Your task to perform on an android device: delete the emails in spam in the gmail app Image 0: 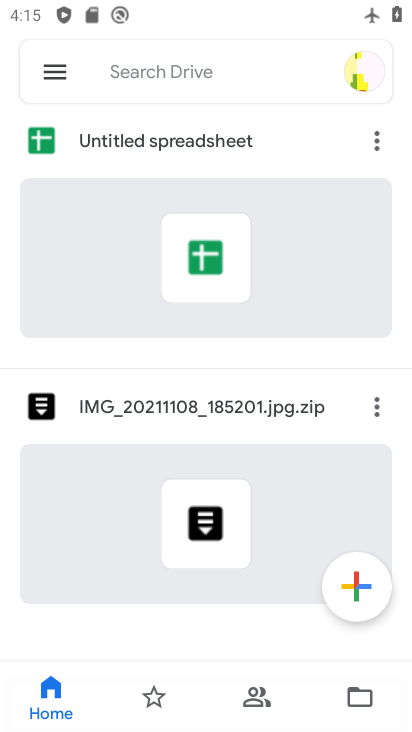
Step 0: press home button
Your task to perform on an android device: delete the emails in spam in the gmail app Image 1: 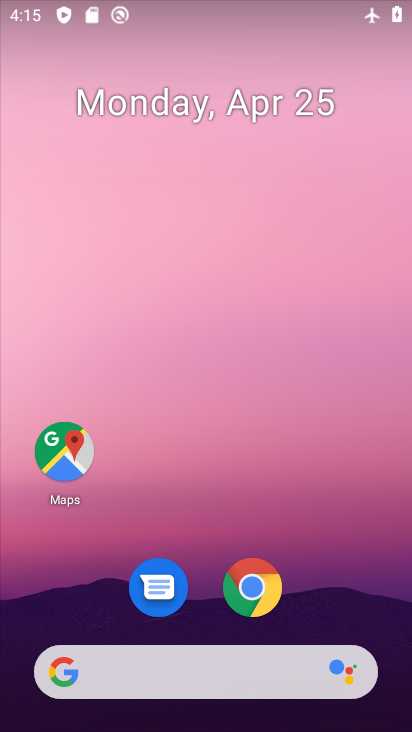
Step 1: drag from (220, 546) to (223, 11)
Your task to perform on an android device: delete the emails in spam in the gmail app Image 2: 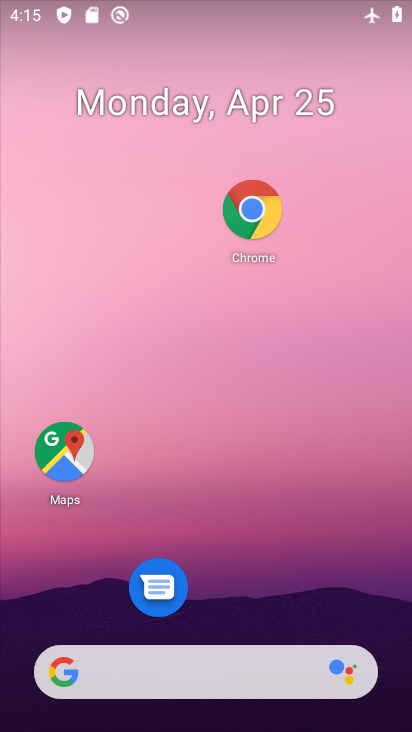
Step 2: drag from (322, 544) to (307, 118)
Your task to perform on an android device: delete the emails in spam in the gmail app Image 3: 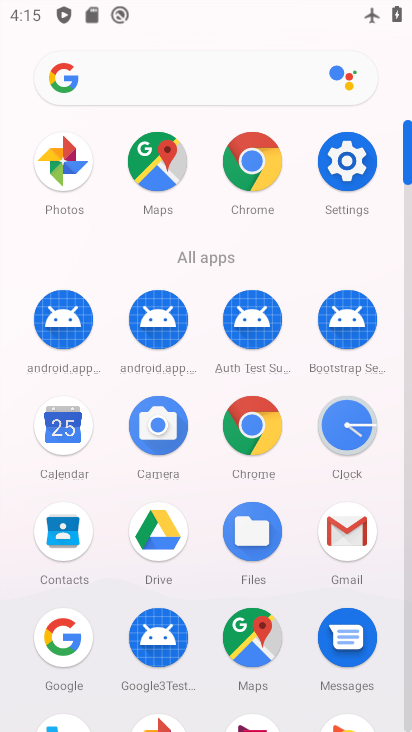
Step 3: click (353, 531)
Your task to perform on an android device: delete the emails in spam in the gmail app Image 4: 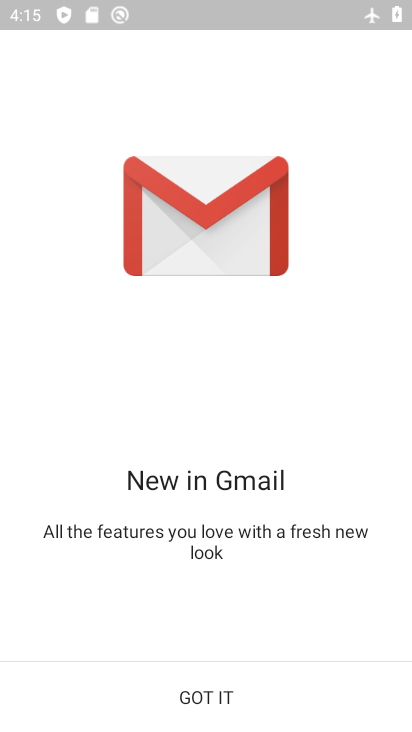
Step 4: click (204, 687)
Your task to perform on an android device: delete the emails in spam in the gmail app Image 5: 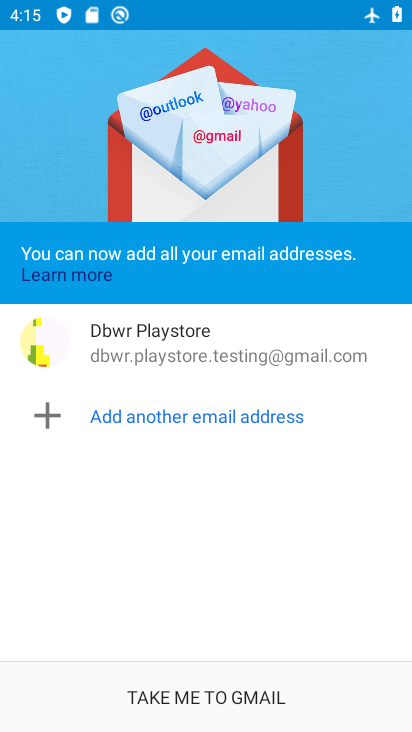
Step 5: click (204, 687)
Your task to perform on an android device: delete the emails in spam in the gmail app Image 6: 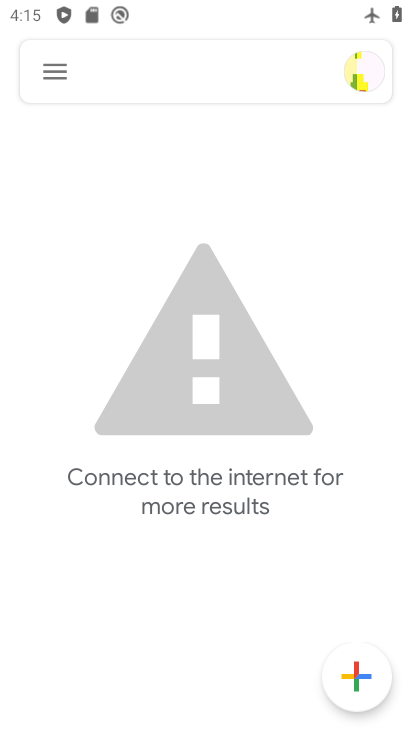
Step 6: click (59, 71)
Your task to perform on an android device: delete the emails in spam in the gmail app Image 7: 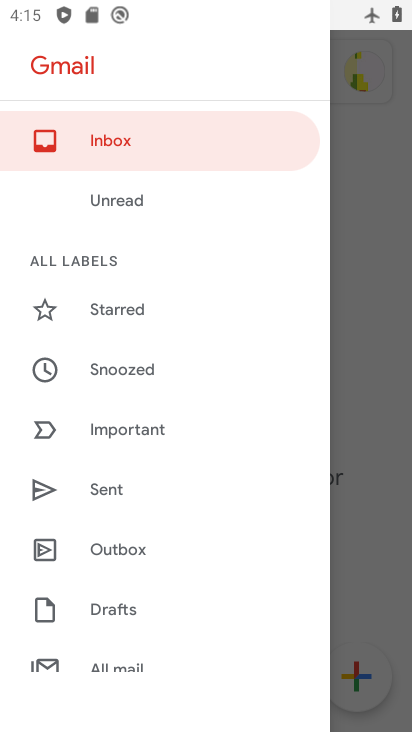
Step 7: drag from (156, 590) to (158, 222)
Your task to perform on an android device: delete the emails in spam in the gmail app Image 8: 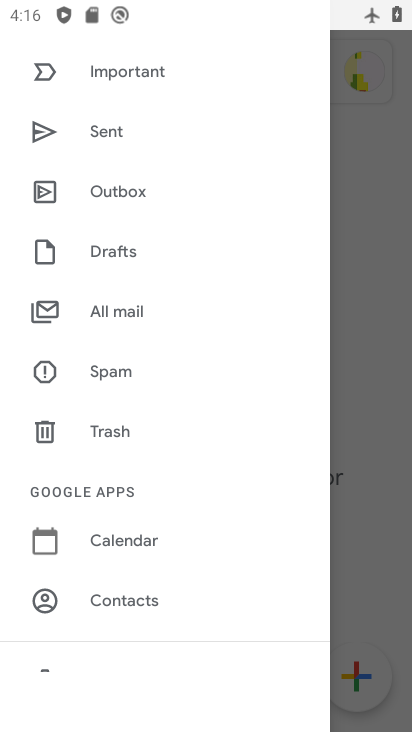
Step 8: click (185, 388)
Your task to perform on an android device: delete the emails in spam in the gmail app Image 9: 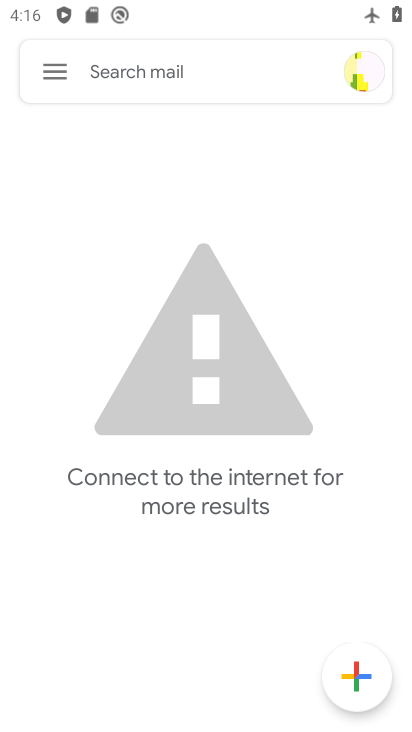
Step 9: task complete